Your task to perform on an android device: Open ESPN.com Image 0: 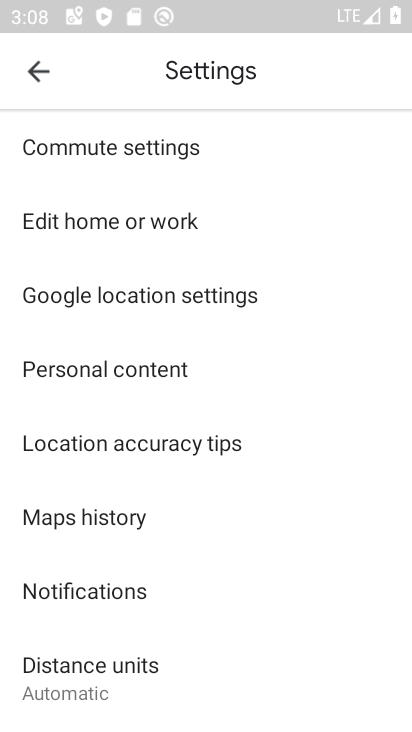
Step 0: press home button
Your task to perform on an android device: Open ESPN.com Image 1: 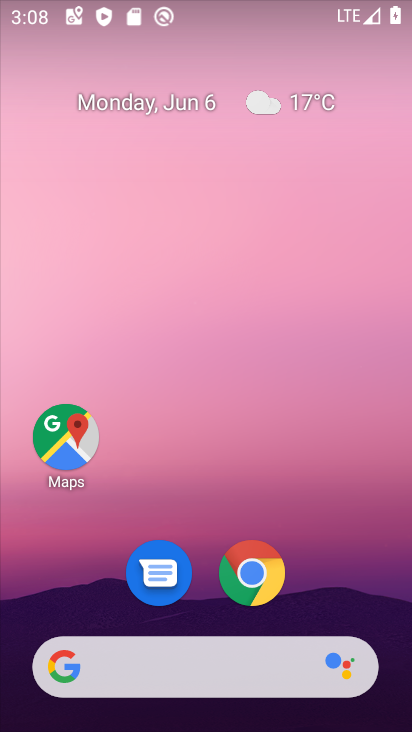
Step 1: drag from (372, 586) to (362, 205)
Your task to perform on an android device: Open ESPN.com Image 2: 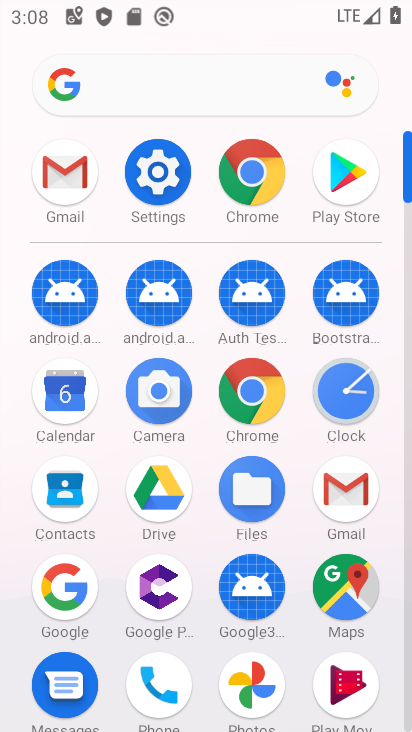
Step 2: click (260, 403)
Your task to perform on an android device: Open ESPN.com Image 3: 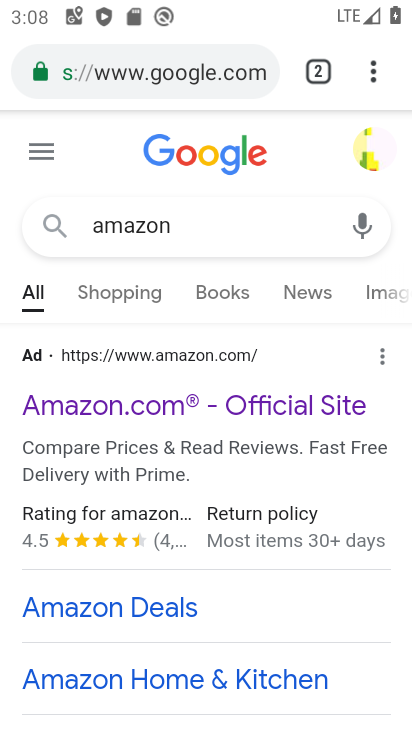
Step 3: click (244, 91)
Your task to perform on an android device: Open ESPN.com Image 4: 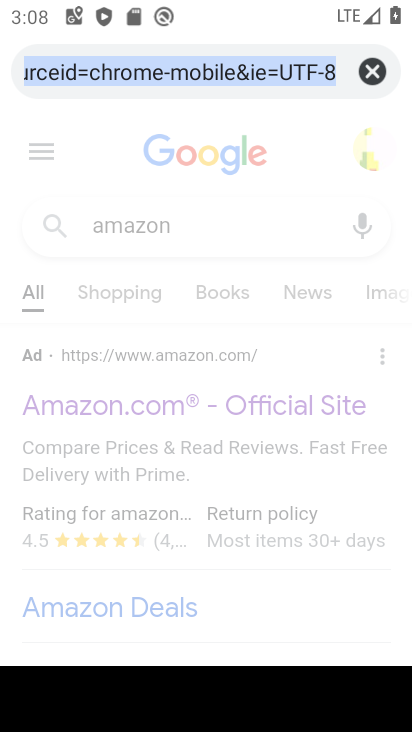
Step 4: click (370, 78)
Your task to perform on an android device: Open ESPN.com Image 5: 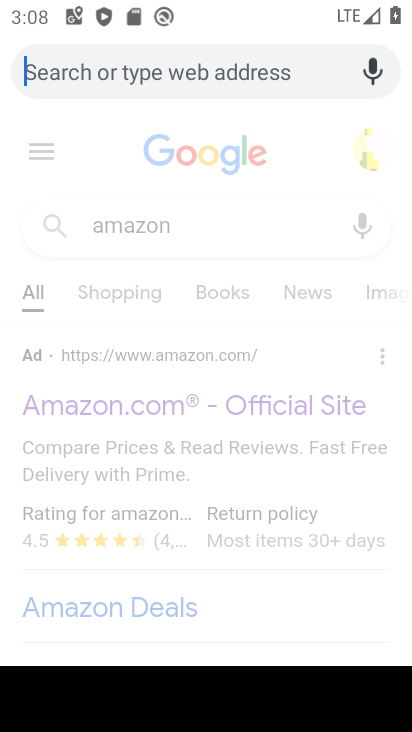
Step 5: type "espn.com"
Your task to perform on an android device: Open ESPN.com Image 6: 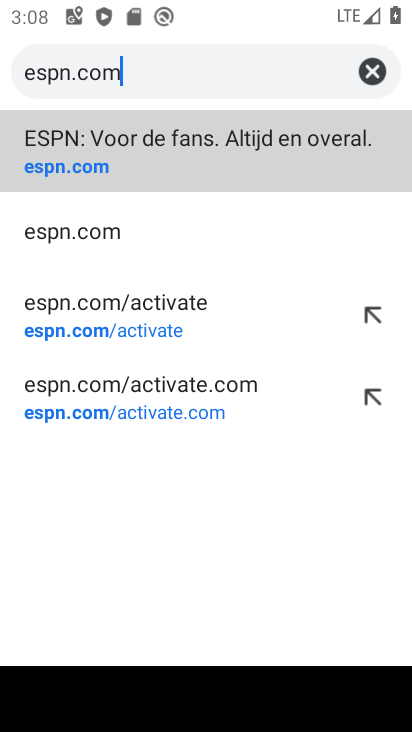
Step 6: click (129, 141)
Your task to perform on an android device: Open ESPN.com Image 7: 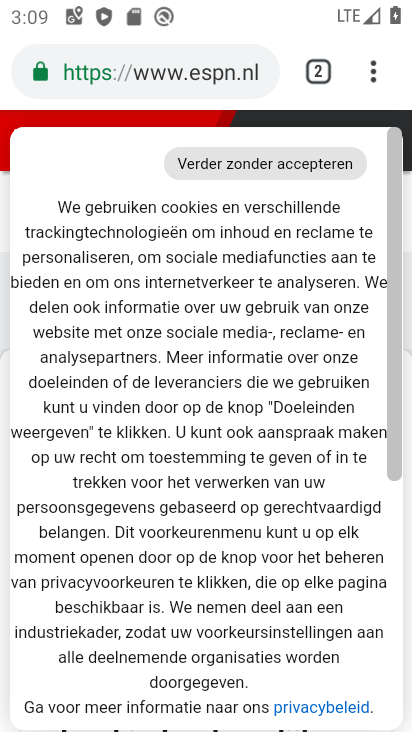
Step 7: task complete